Your task to perform on an android device: turn on wifi Image 0: 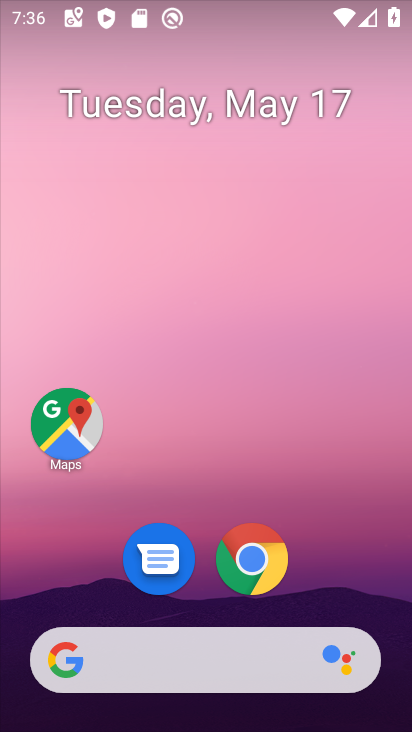
Step 0: drag from (260, 642) to (204, 34)
Your task to perform on an android device: turn on wifi Image 1: 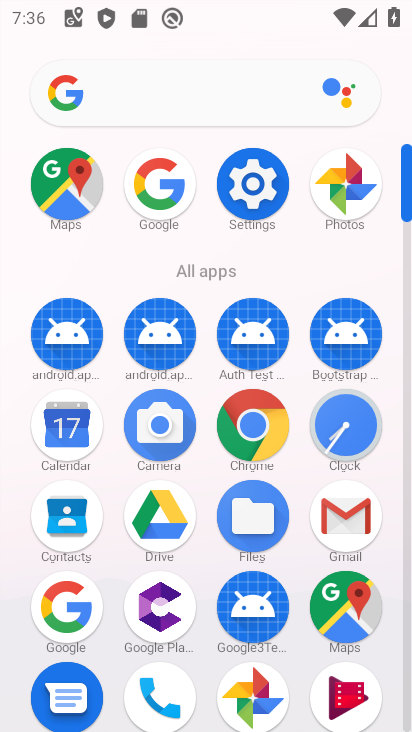
Step 1: click (253, 168)
Your task to perform on an android device: turn on wifi Image 2: 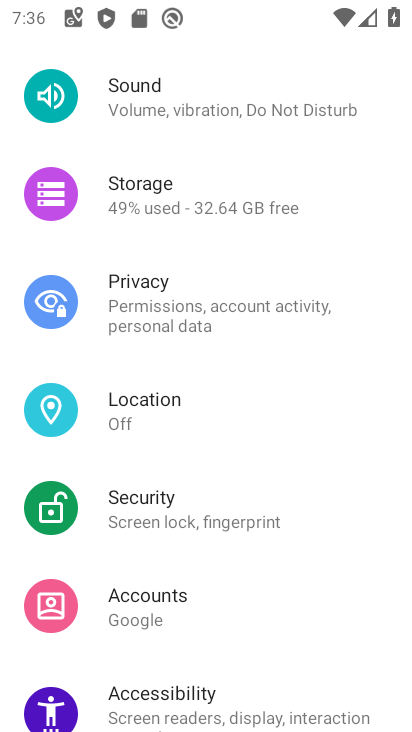
Step 2: drag from (316, 207) to (224, 693)
Your task to perform on an android device: turn on wifi Image 3: 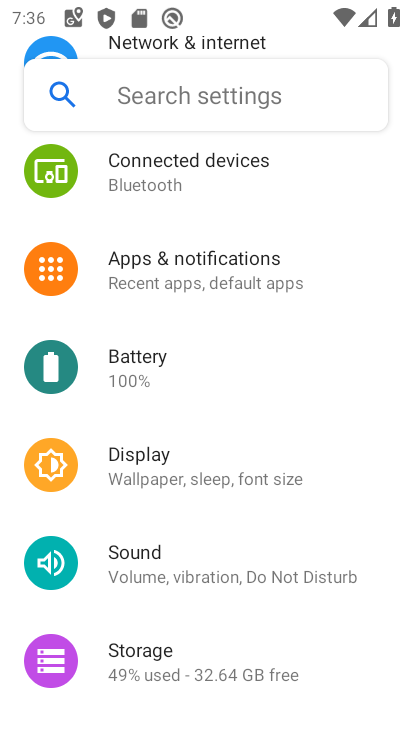
Step 3: drag from (291, 169) to (277, 725)
Your task to perform on an android device: turn on wifi Image 4: 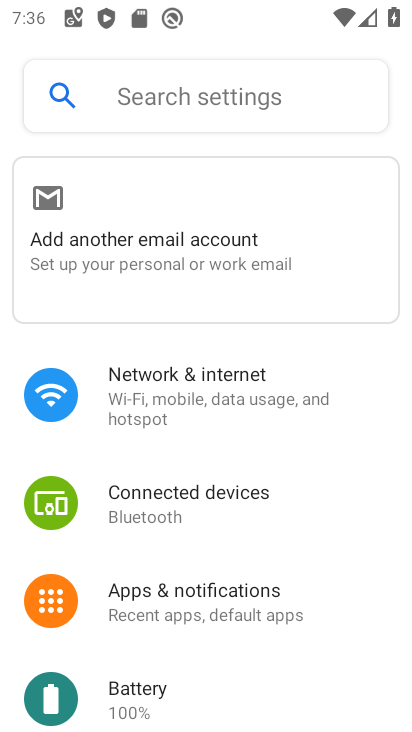
Step 4: click (256, 399)
Your task to perform on an android device: turn on wifi Image 5: 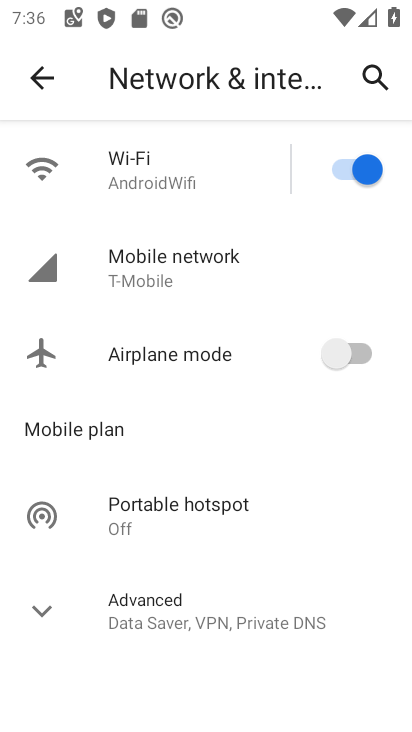
Step 5: click (181, 185)
Your task to perform on an android device: turn on wifi Image 6: 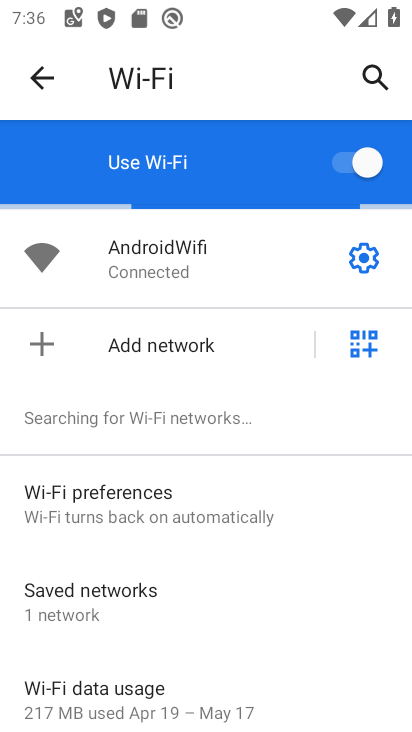
Step 6: click (178, 262)
Your task to perform on an android device: turn on wifi Image 7: 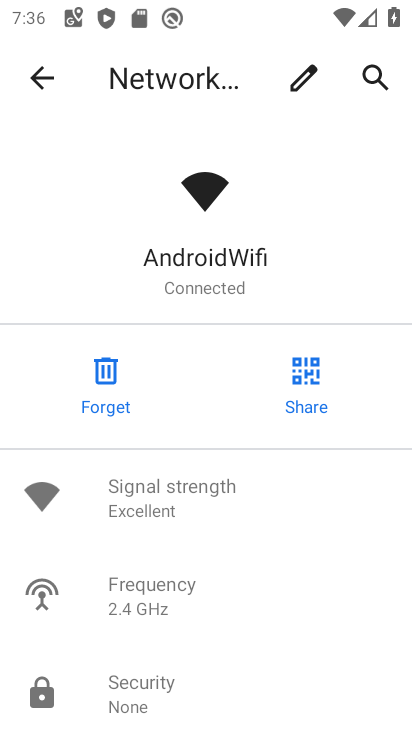
Step 7: click (48, 74)
Your task to perform on an android device: turn on wifi Image 8: 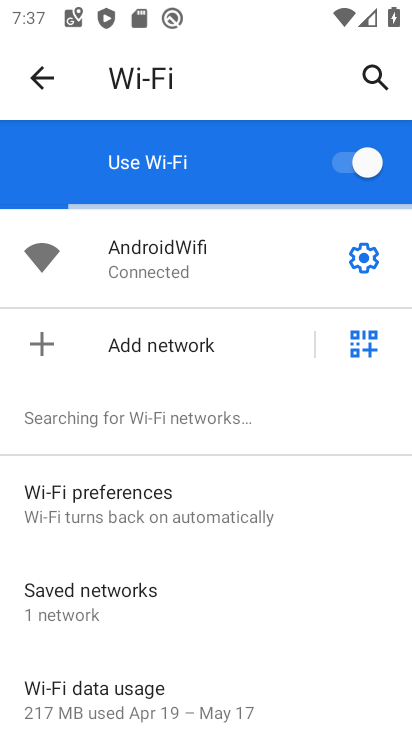
Step 8: task complete